Your task to perform on an android device: Go to Maps Image 0: 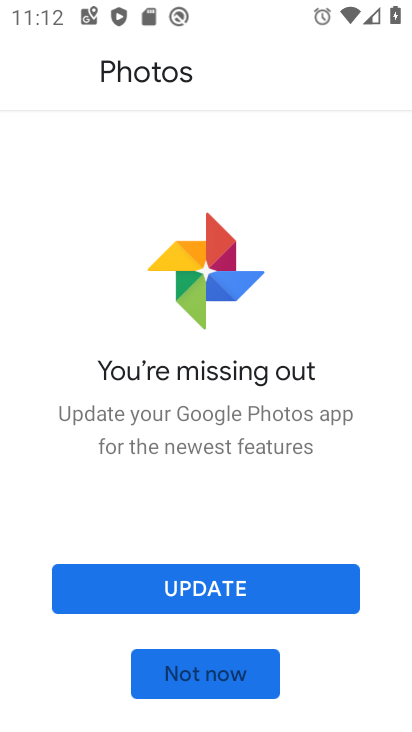
Step 0: press home button
Your task to perform on an android device: Go to Maps Image 1: 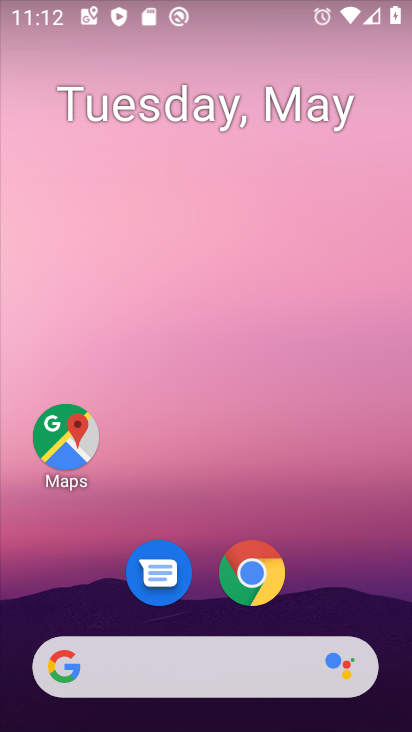
Step 1: drag from (259, 686) to (225, 234)
Your task to perform on an android device: Go to Maps Image 2: 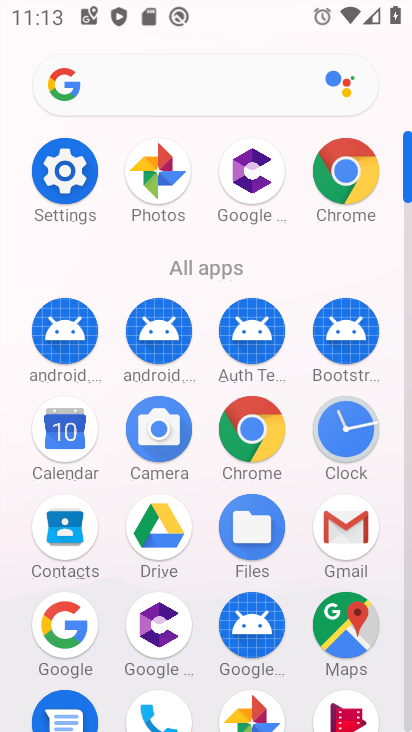
Step 2: click (346, 613)
Your task to perform on an android device: Go to Maps Image 3: 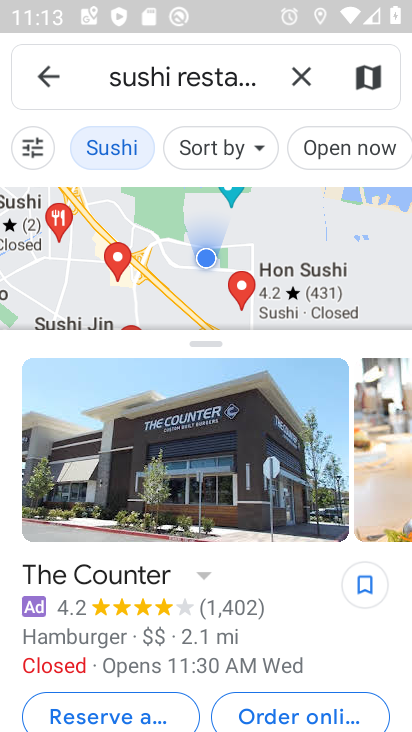
Step 3: click (144, 295)
Your task to perform on an android device: Go to Maps Image 4: 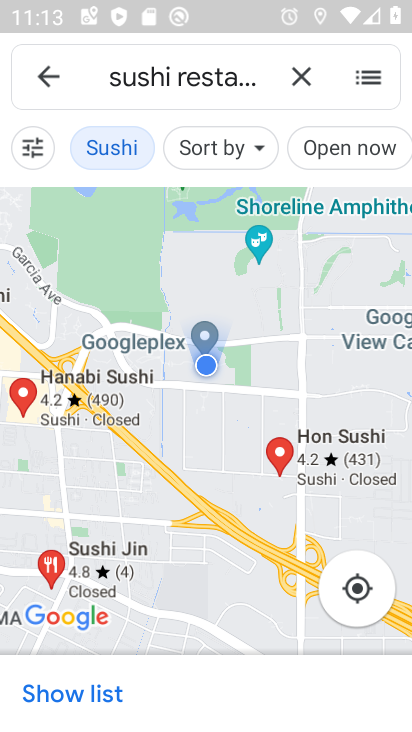
Step 4: click (42, 83)
Your task to perform on an android device: Go to Maps Image 5: 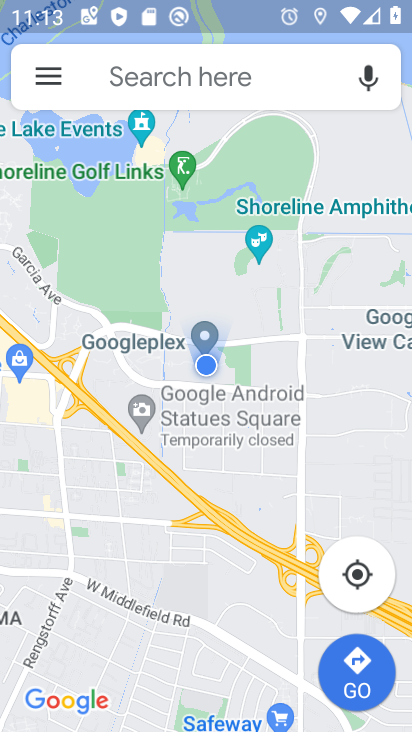
Step 5: click (171, 298)
Your task to perform on an android device: Go to Maps Image 6: 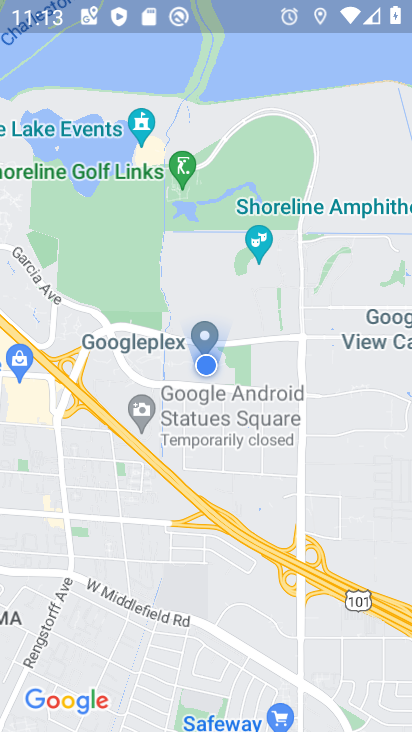
Step 6: task complete